Your task to perform on an android device: What's the weather going to be tomorrow? Image 0: 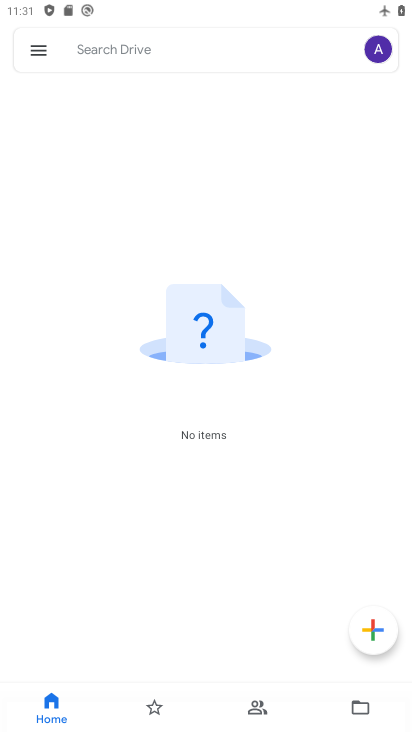
Step 0: press home button
Your task to perform on an android device: What's the weather going to be tomorrow? Image 1: 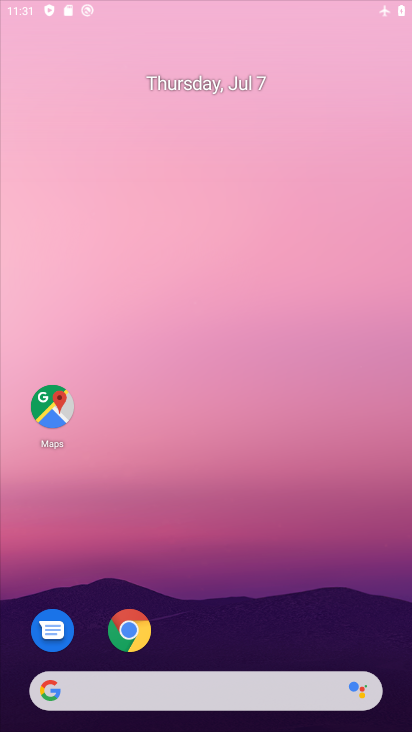
Step 1: drag from (372, 684) to (265, 1)
Your task to perform on an android device: What's the weather going to be tomorrow? Image 2: 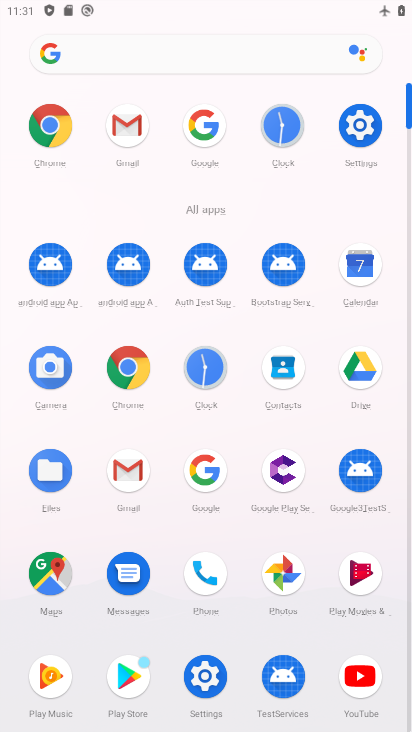
Step 2: click (207, 464)
Your task to perform on an android device: What's the weather going to be tomorrow? Image 3: 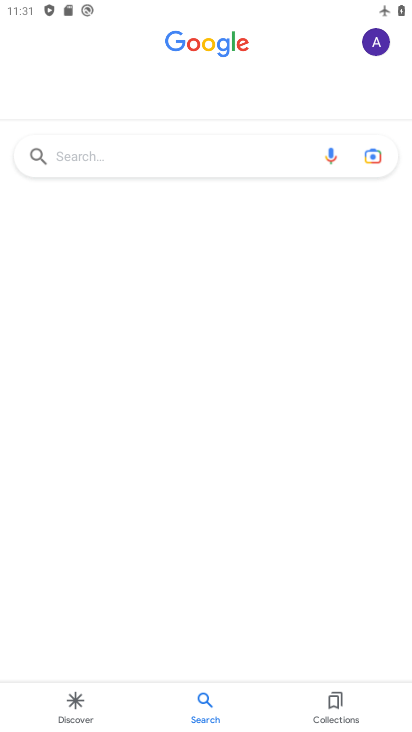
Step 3: click (130, 152)
Your task to perform on an android device: What's the weather going to be tomorrow? Image 4: 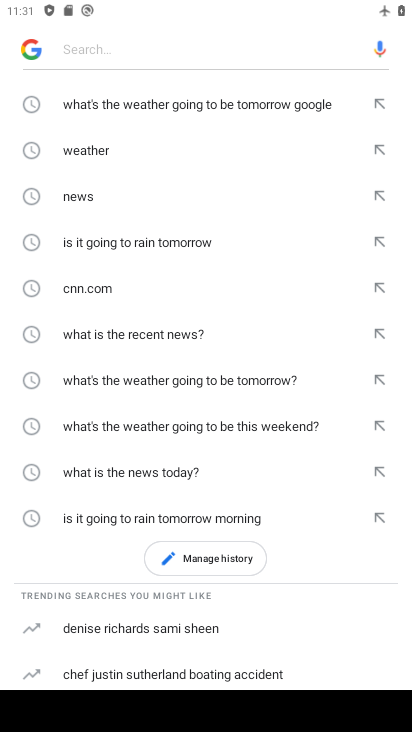
Step 4: type "What's the weather going to be tomorrow?"
Your task to perform on an android device: What's the weather going to be tomorrow? Image 5: 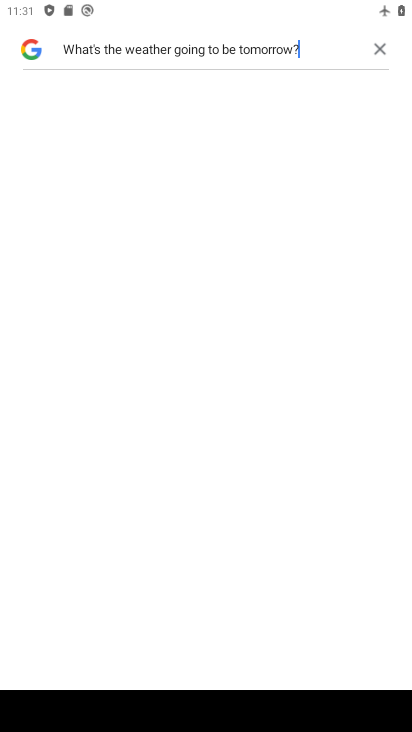
Step 5: task complete